Your task to perform on an android device: Show me productivity apps on the Play Store Image 0: 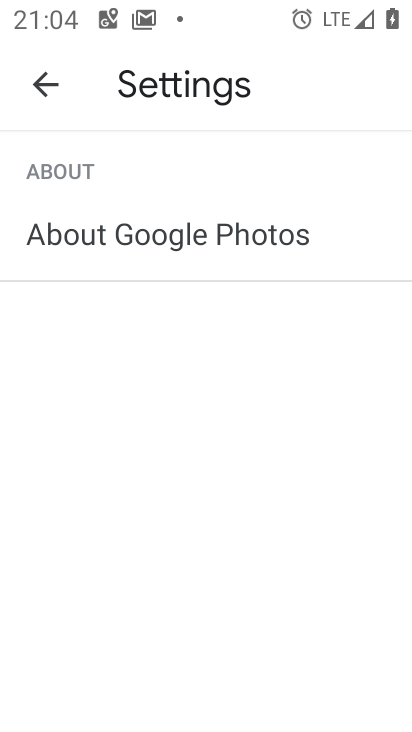
Step 0: press home button
Your task to perform on an android device: Show me productivity apps on the Play Store Image 1: 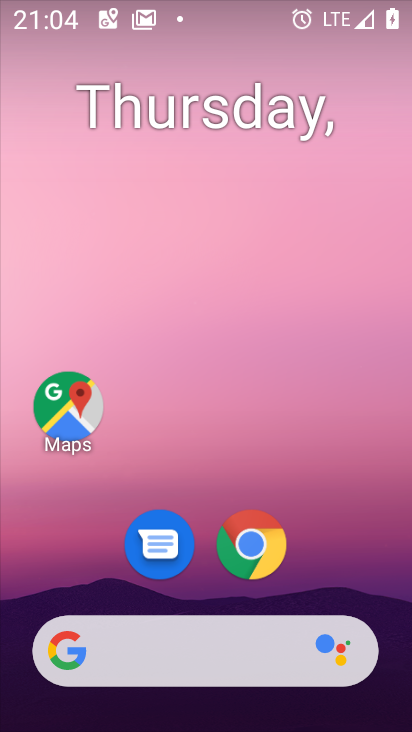
Step 1: drag from (190, 594) to (402, 264)
Your task to perform on an android device: Show me productivity apps on the Play Store Image 2: 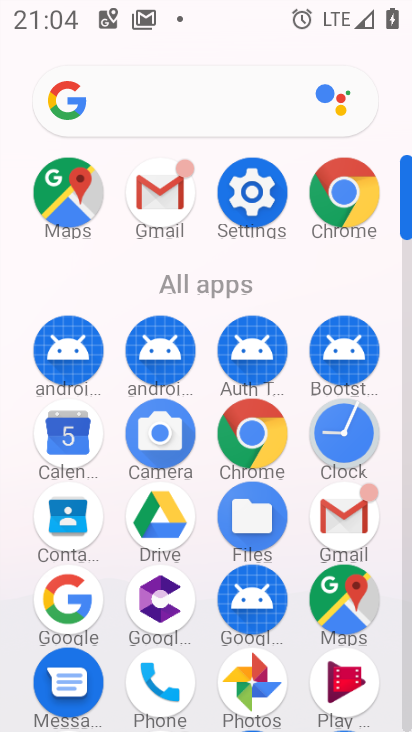
Step 2: drag from (113, 634) to (161, 212)
Your task to perform on an android device: Show me productivity apps on the Play Store Image 3: 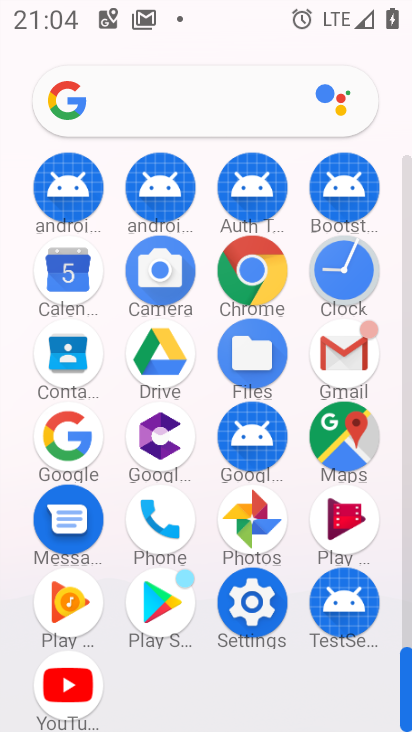
Step 3: click (154, 594)
Your task to perform on an android device: Show me productivity apps on the Play Store Image 4: 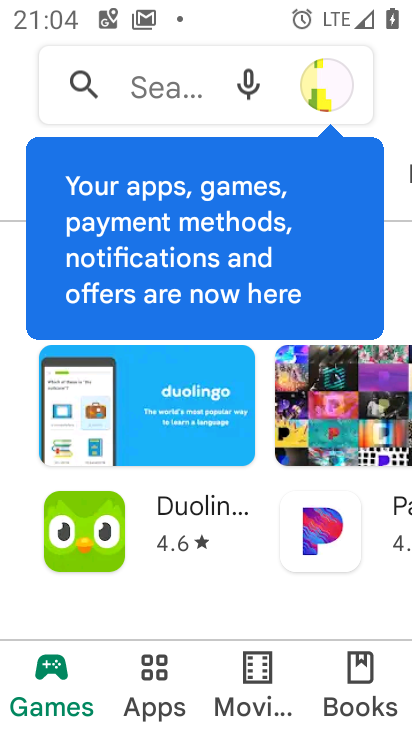
Step 4: click (168, 664)
Your task to perform on an android device: Show me productivity apps on the Play Store Image 5: 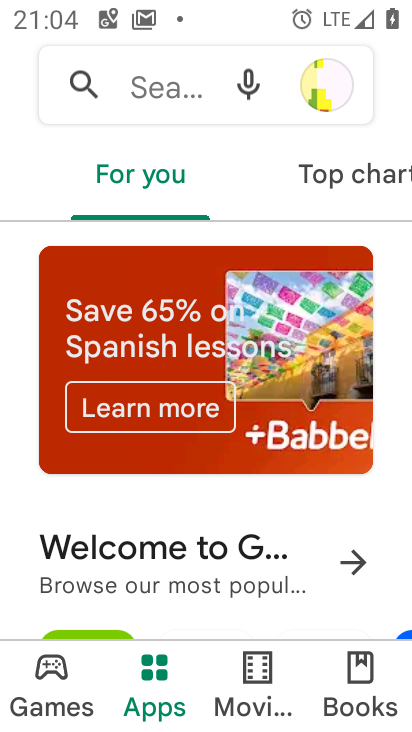
Step 5: click (339, 178)
Your task to perform on an android device: Show me productivity apps on the Play Store Image 6: 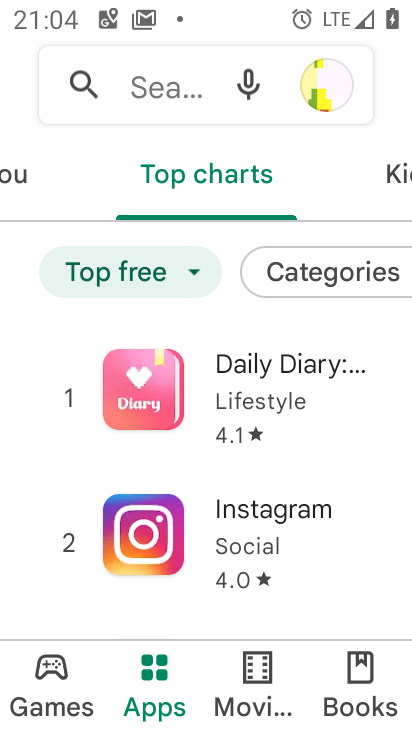
Step 6: click (301, 259)
Your task to perform on an android device: Show me productivity apps on the Play Store Image 7: 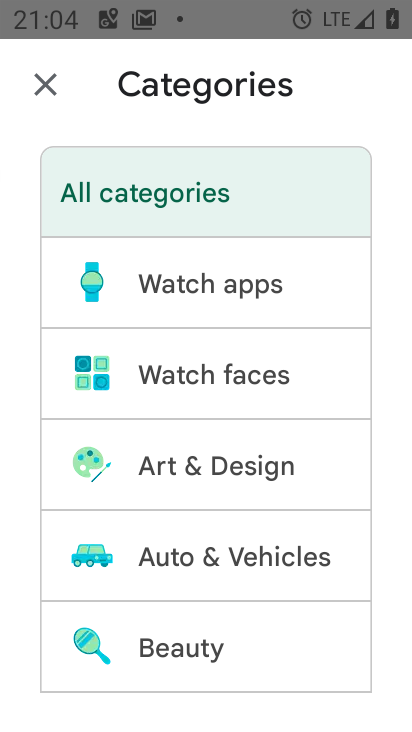
Step 7: drag from (198, 521) to (232, 159)
Your task to perform on an android device: Show me productivity apps on the Play Store Image 8: 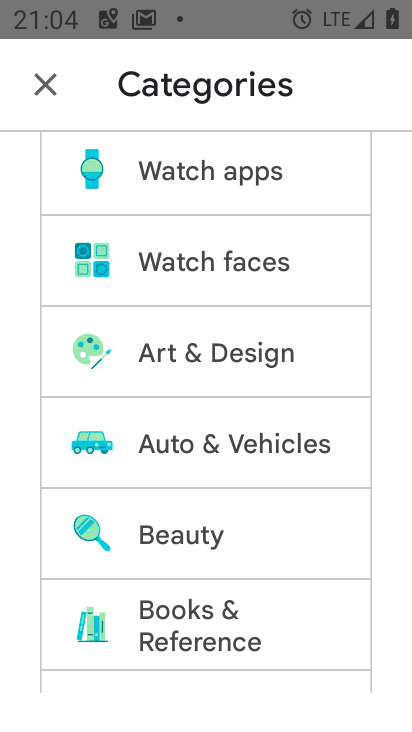
Step 8: drag from (110, 566) to (160, 208)
Your task to perform on an android device: Show me productivity apps on the Play Store Image 9: 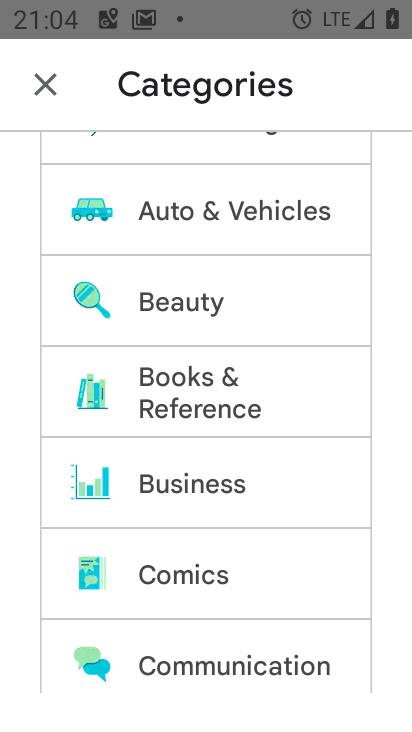
Step 9: drag from (94, 614) to (289, 135)
Your task to perform on an android device: Show me productivity apps on the Play Store Image 10: 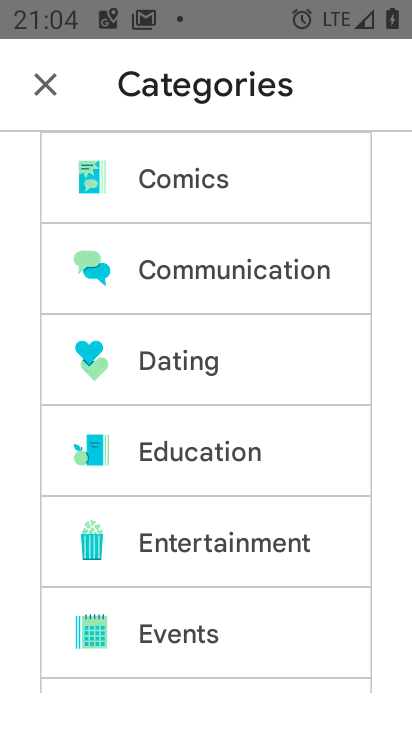
Step 10: drag from (123, 622) to (294, 226)
Your task to perform on an android device: Show me productivity apps on the Play Store Image 11: 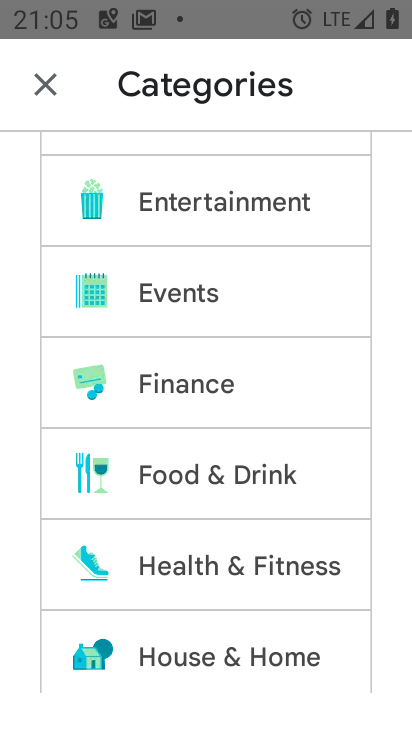
Step 11: drag from (150, 658) to (277, 182)
Your task to perform on an android device: Show me productivity apps on the Play Store Image 12: 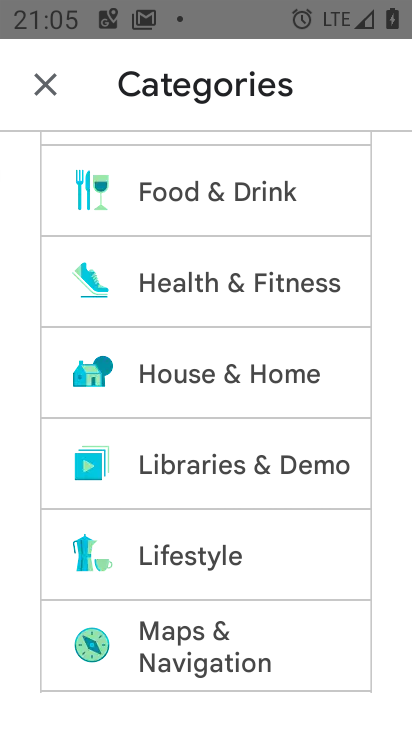
Step 12: drag from (175, 517) to (239, 154)
Your task to perform on an android device: Show me productivity apps on the Play Store Image 13: 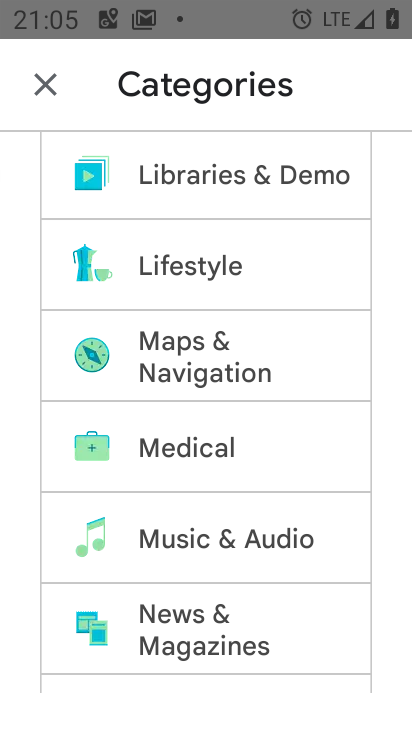
Step 13: drag from (153, 545) to (289, 30)
Your task to perform on an android device: Show me productivity apps on the Play Store Image 14: 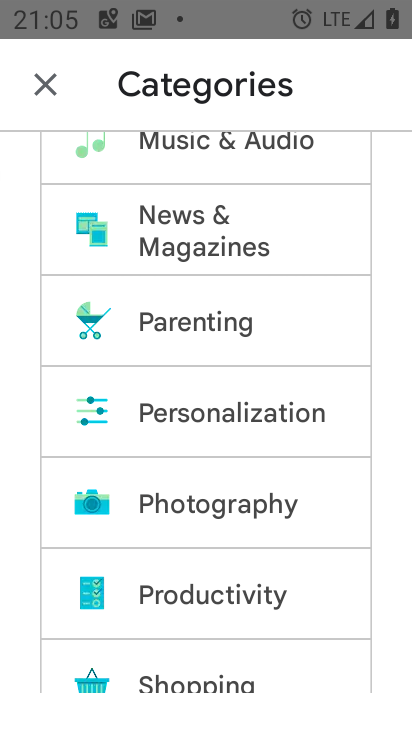
Step 14: click (168, 575)
Your task to perform on an android device: Show me productivity apps on the Play Store Image 15: 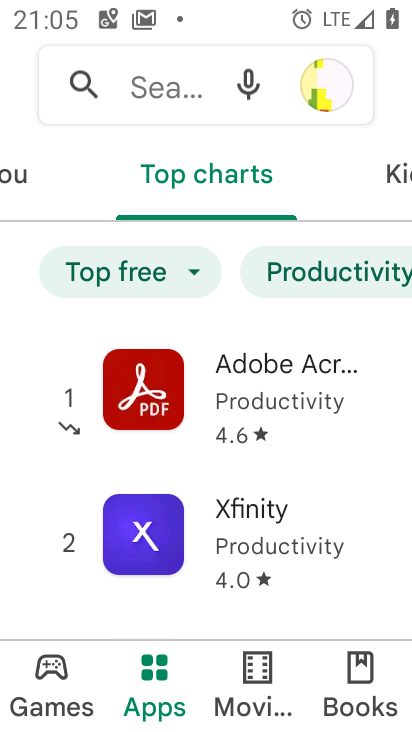
Step 15: task complete